Your task to perform on an android device: delete the emails in spam in the gmail app Image 0: 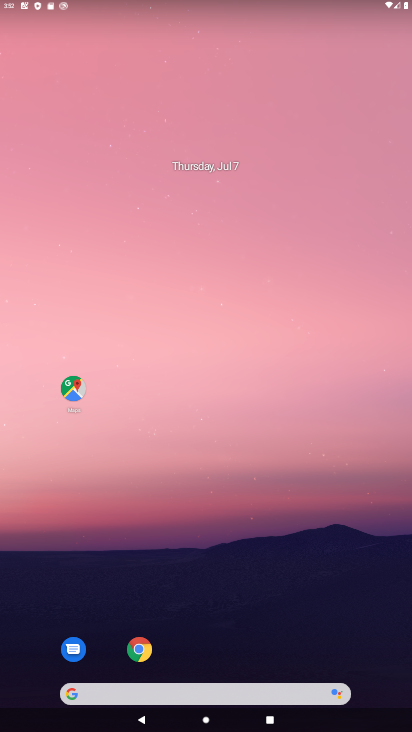
Step 0: drag from (372, 640) to (323, 157)
Your task to perform on an android device: delete the emails in spam in the gmail app Image 1: 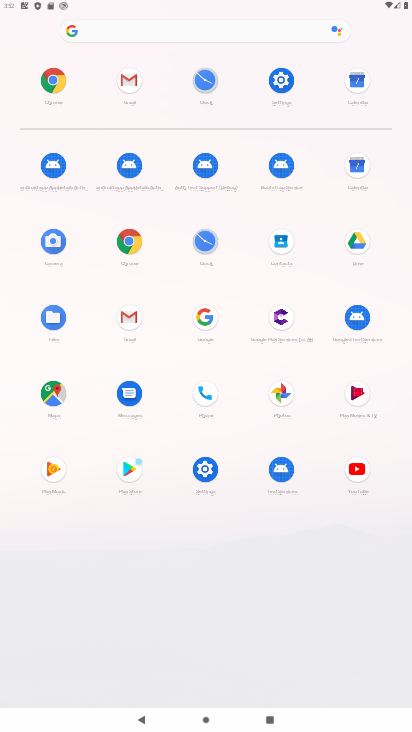
Step 1: click (120, 330)
Your task to perform on an android device: delete the emails in spam in the gmail app Image 2: 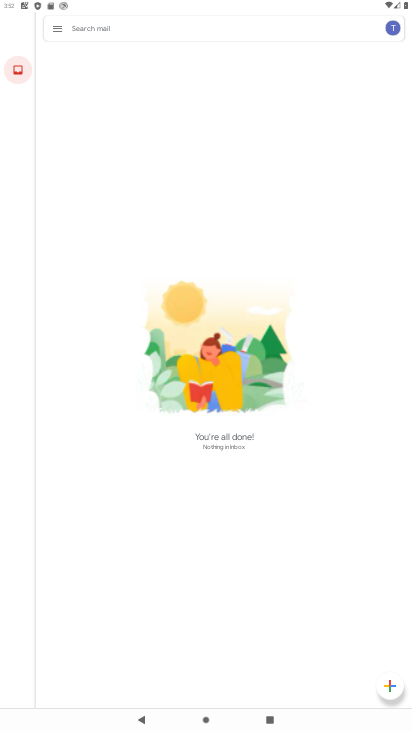
Step 2: task complete